Your task to perform on an android device: toggle pop-ups in chrome Image 0: 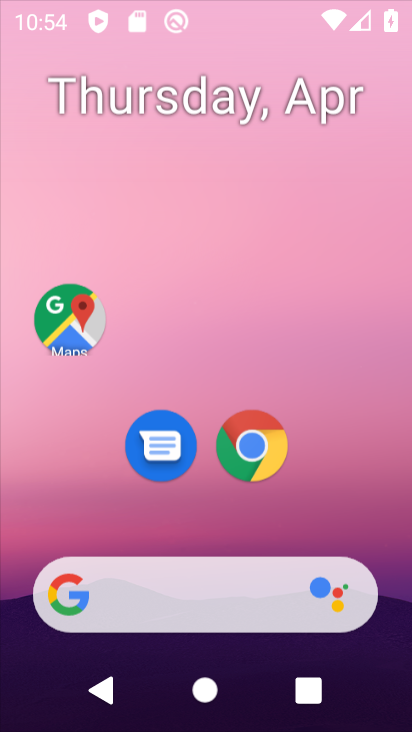
Step 0: click (288, 0)
Your task to perform on an android device: toggle pop-ups in chrome Image 1: 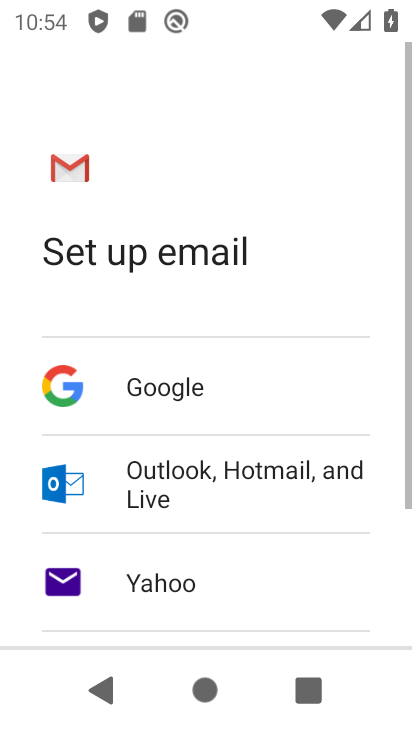
Step 1: press home button
Your task to perform on an android device: toggle pop-ups in chrome Image 2: 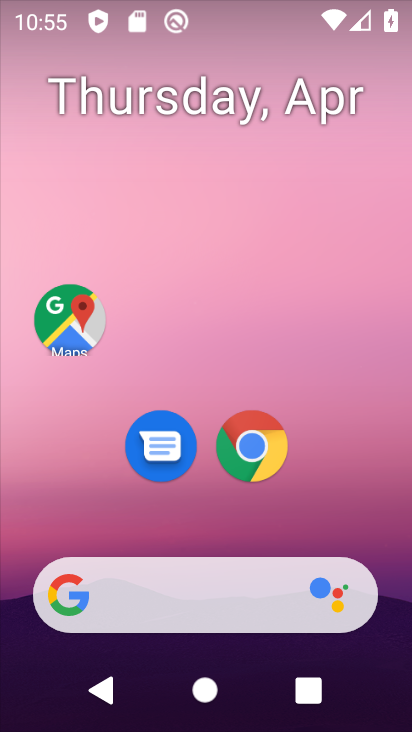
Step 2: drag from (202, 525) to (258, 187)
Your task to perform on an android device: toggle pop-ups in chrome Image 3: 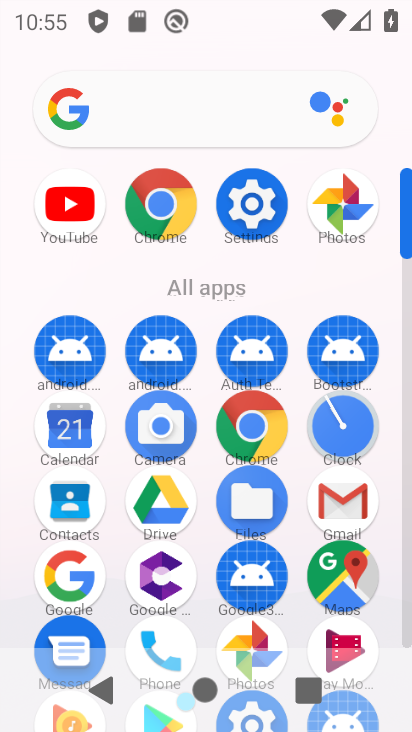
Step 3: click (151, 198)
Your task to perform on an android device: toggle pop-ups in chrome Image 4: 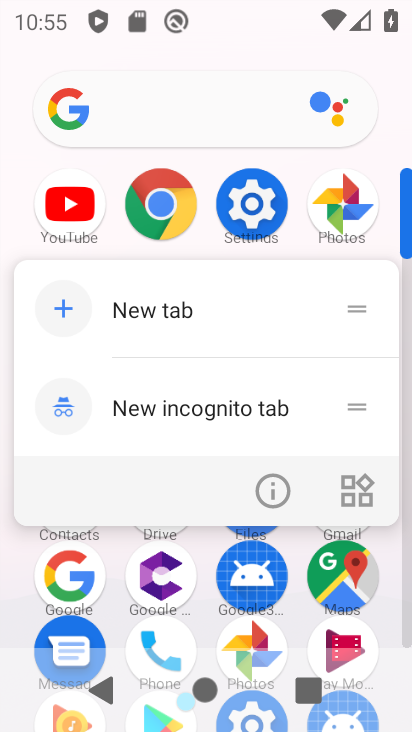
Step 4: click (256, 471)
Your task to perform on an android device: toggle pop-ups in chrome Image 5: 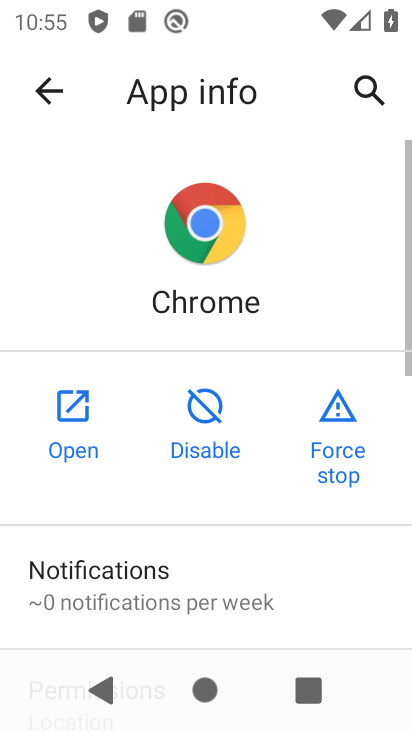
Step 5: click (94, 416)
Your task to perform on an android device: toggle pop-ups in chrome Image 6: 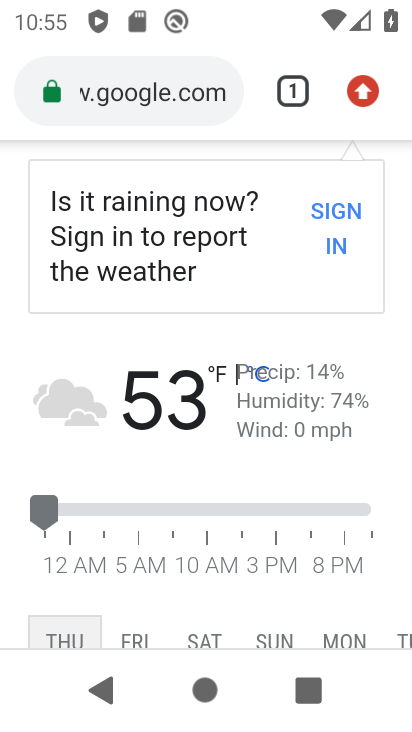
Step 6: drag from (232, 570) to (327, 172)
Your task to perform on an android device: toggle pop-ups in chrome Image 7: 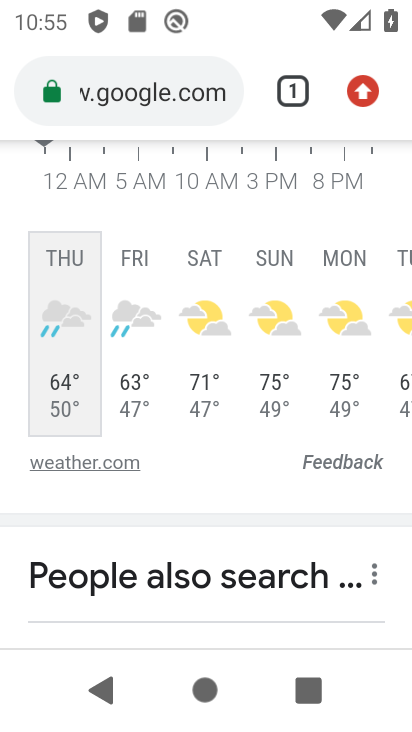
Step 7: drag from (223, 593) to (306, 266)
Your task to perform on an android device: toggle pop-ups in chrome Image 8: 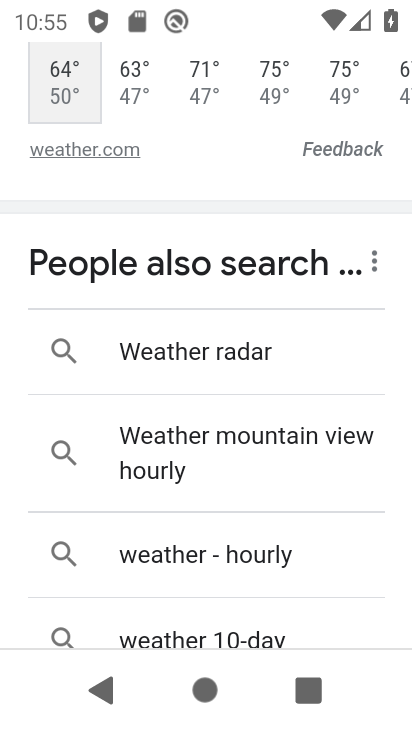
Step 8: drag from (198, 577) to (257, 201)
Your task to perform on an android device: toggle pop-ups in chrome Image 9: 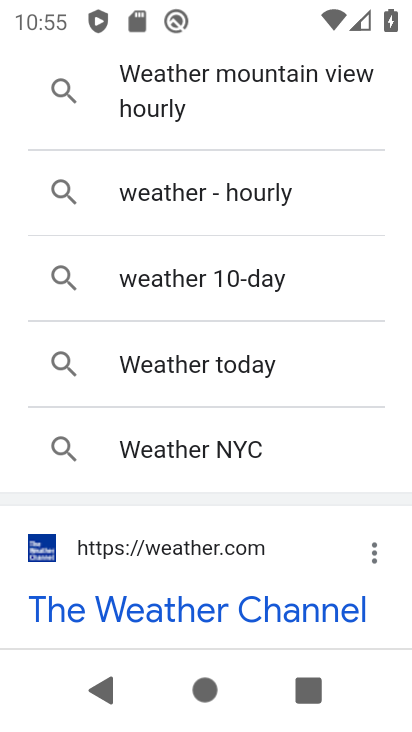
Step 9: drag from (294, 513) to (348, 275)
Your task to perform on an android device: toggle pop-ups in chrome Image 10: 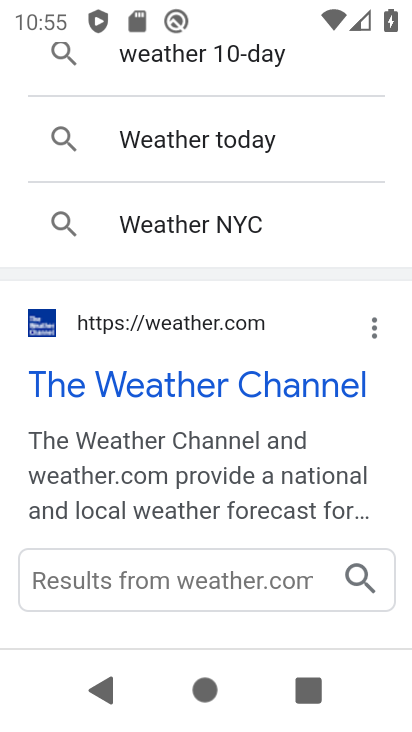
Step 10: drag from (245, 210) to (347, 616)
Your task to perform on an android device: toggle pop-ups in chrome Image 11: 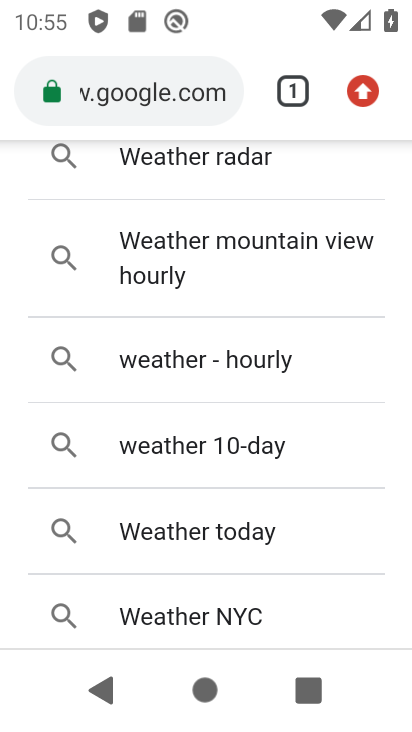
Step 11: drag from (276, 253) to (312, 668)
Your task to perform on an android device: toggle pop-ups in chrome Image 12: 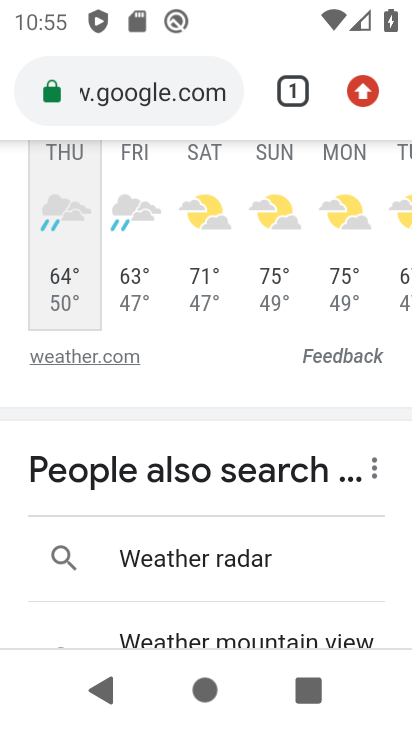
Step 12: drag from (374, 101) to (195, 467)
Your task to perform on an android device: toggle pop-ups in chrome Image 13: 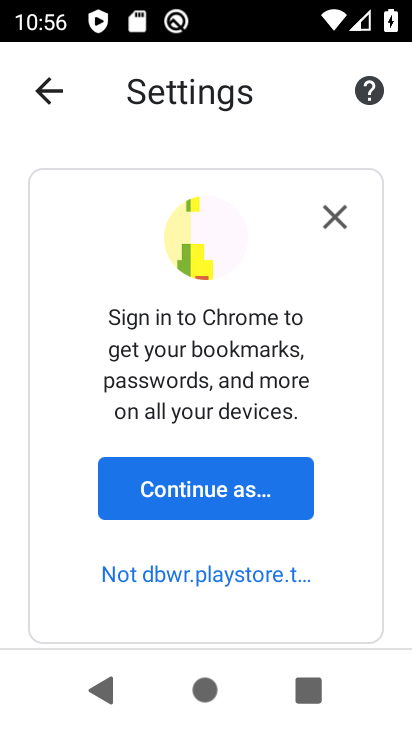
Step 13: drag from (174, 602) to (184, 211)
Your task to perform on an android device: toggle pop-ups in chrome Image 14: 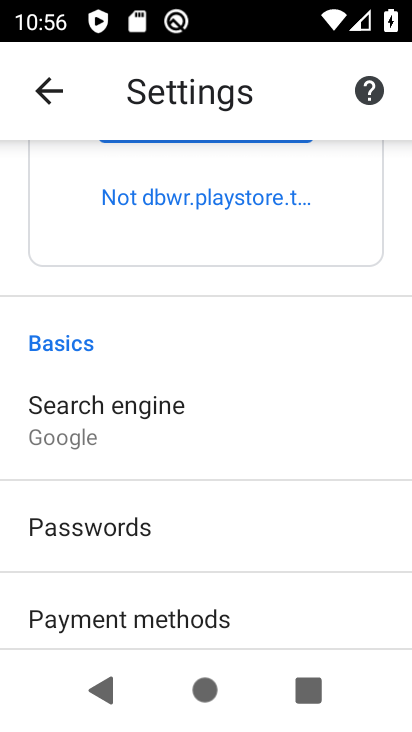
Step 14: drag from (231, 440) to (253, 269)
Your task to perform on an android device: toggle pop-ups in chrome Image 15: 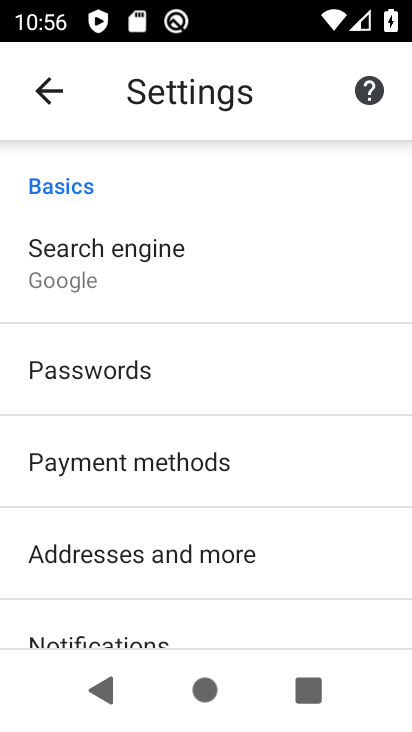
Step 15: drag from (163, 591) to (217, 256)
Your task to perform on an android device: toggle pop-ups in chrome Image 16: 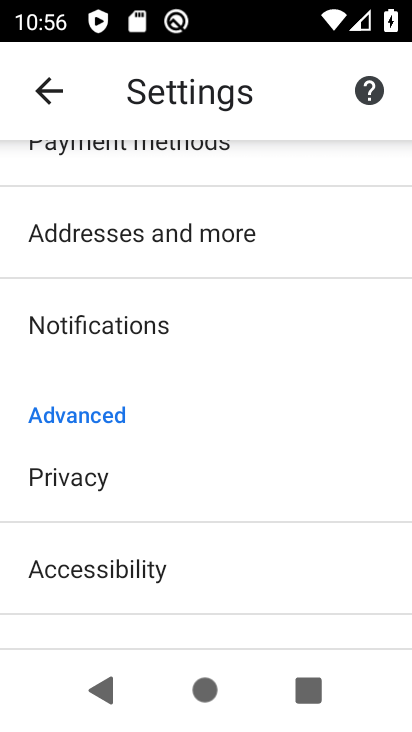
Step 16: drag from (198, 508) to (231, 292)
Your task to perform on an android device: toggle pop-ups in chrome Image 17: 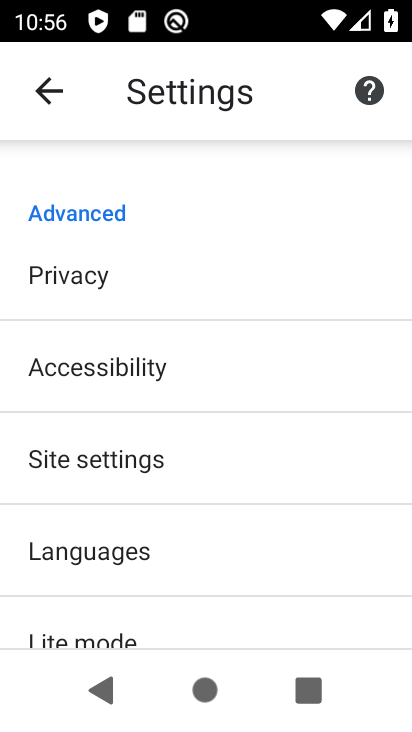
Step 17: click (120, 444)
Your task to perform on an android device: toggle pop-ups in chrome Image 18: 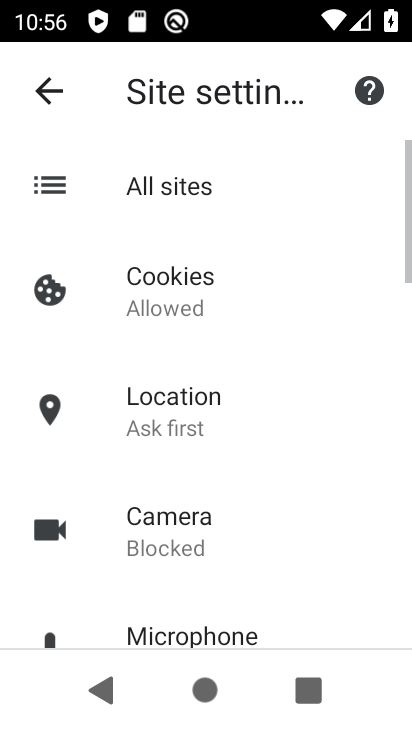
Step 18: drag from (233, 529) to (236, 144)
Your task to perform on an android device: toggle pop-ups in chrome Image 19: 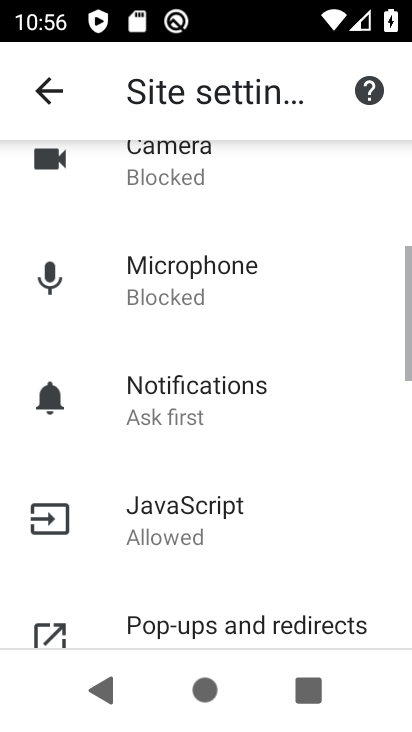
Step 19: drag from (214, 546) to (258, 226)
Your task to perform on an android device: toggle pop-ups in chrome Image 20: 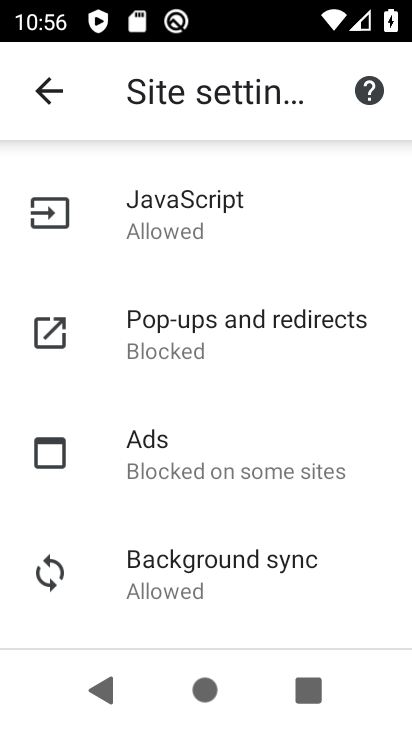
Step 20: click (182, 338)
Your task to perform on an android device: toggle pop-ups in chrome Image 21: 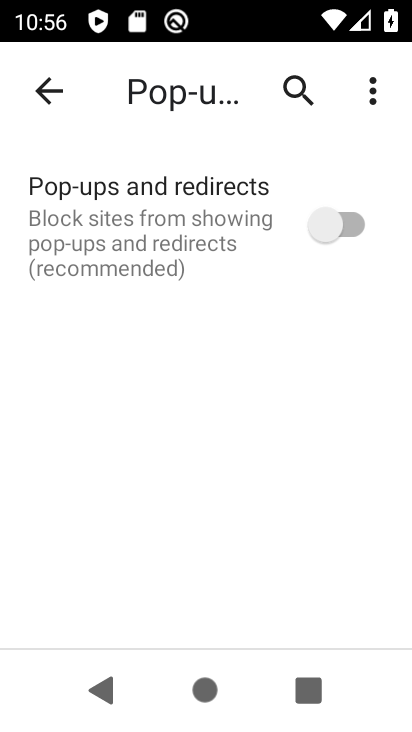
Step 21: click (184, 233)
Your task to perform on an android device: toggle pop-ups in chrome Image 22: 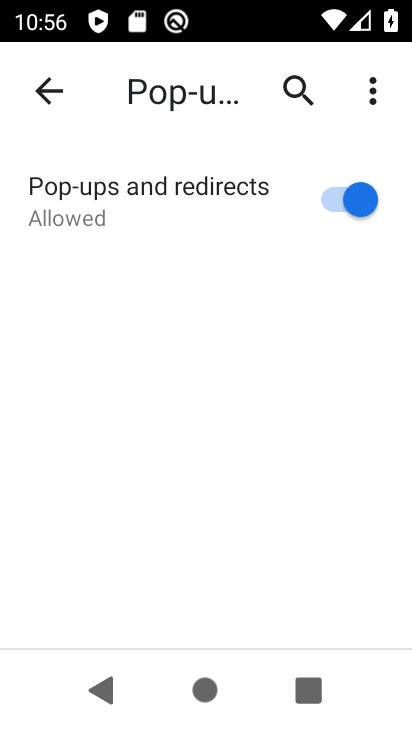
Step 22: task complete